Your task to perform on an android device: Find coffee shops on Maps Image 0: 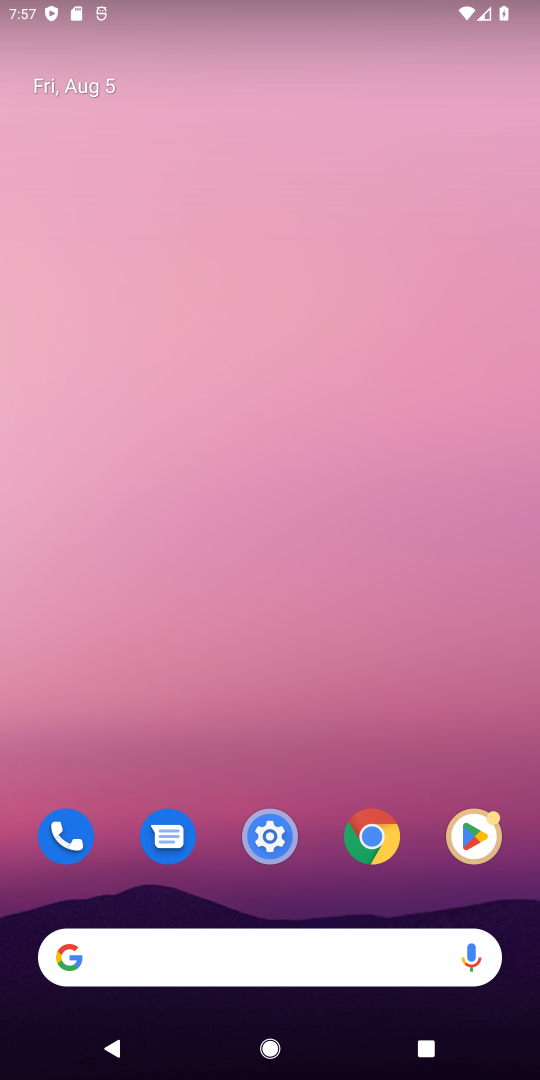
Step 0: drag from (295, 718) to (308, 181)
Your task to perform on an android device: Find coffee shops on Maps Image 1: 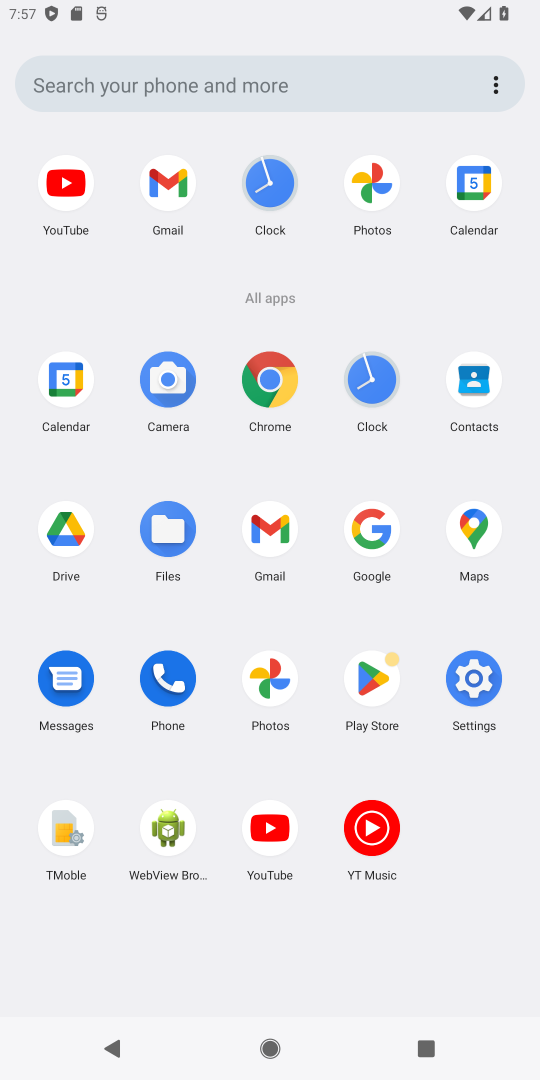
Step 1: click (475, 523)
Your task to perform on an android device: Find coffee shops on Maps Image 2: 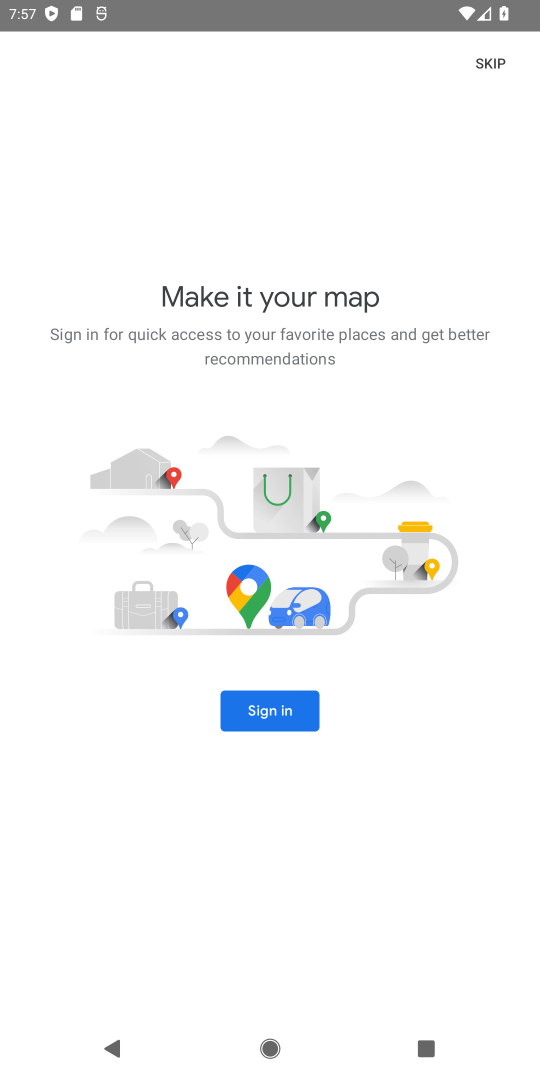
Step 2: click (492, 58)
Your task to perform on an android device: Find coffee shops on Maps Image 3: 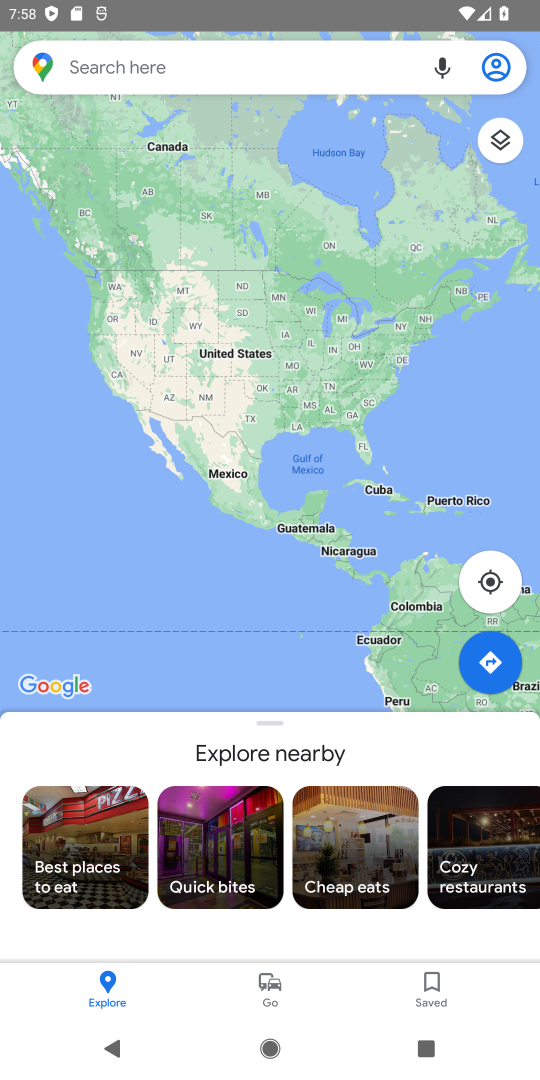
Step 3: click (246, 74)
Your task to perform on an android device: Find coffee shops on Maps Image 4: 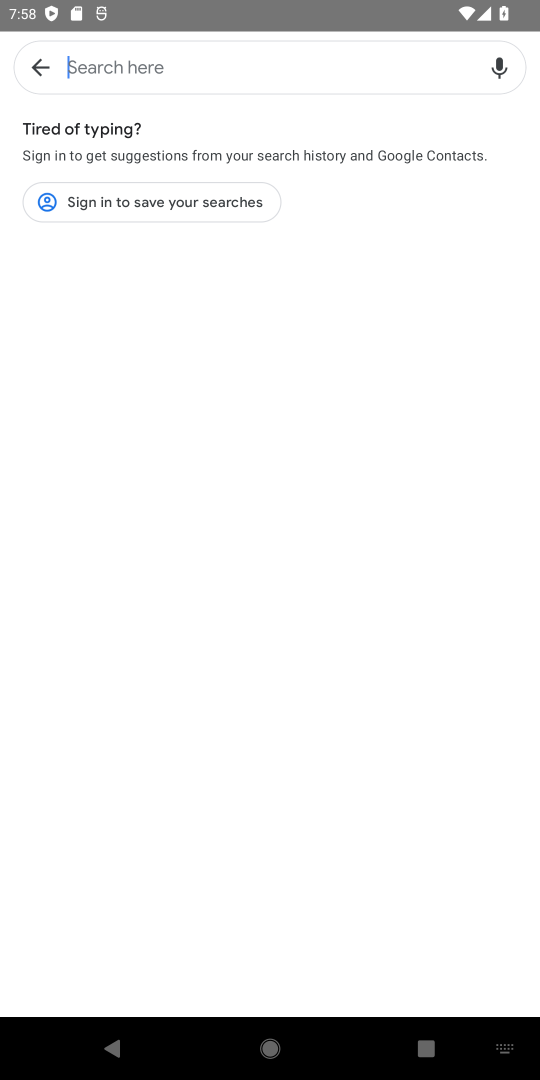
Step 4: type "coffee shops"
Your task to perform on an android device: Find coffee shops on Maps Image 5: 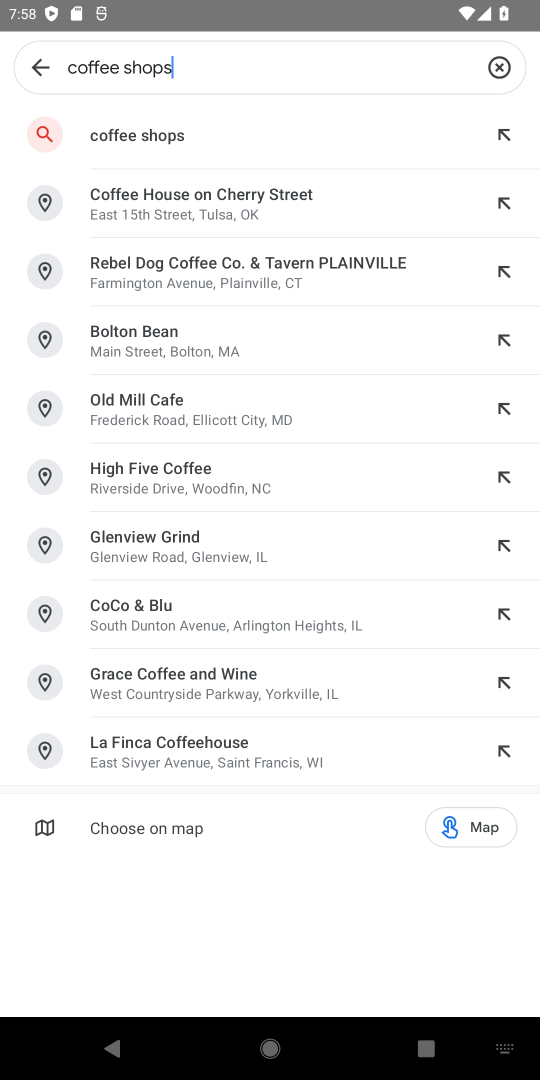
Step 5: click (161, 129)
Your task to perform on an android device: Find coffee shops on Maps Image 6: 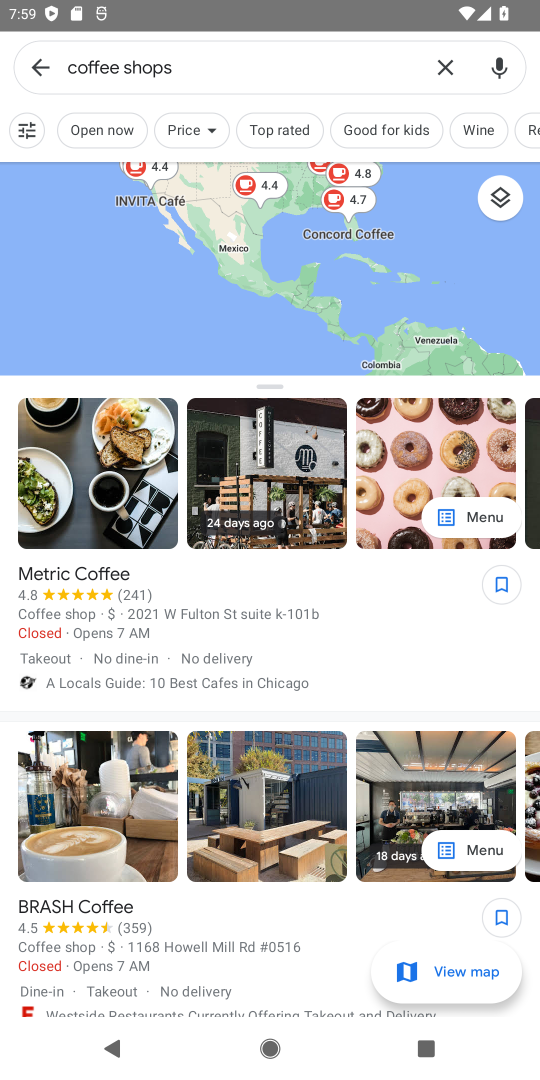
Step 6: task complete